Your task to perform on an android device: change notification settings in the gmail app Image 0: 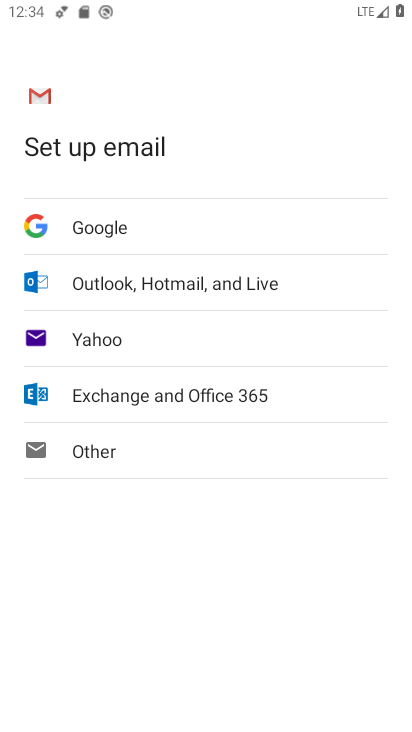
Step 0: press home button
Your task to perform on an android device: change notification settings in the gmail app Image 1: 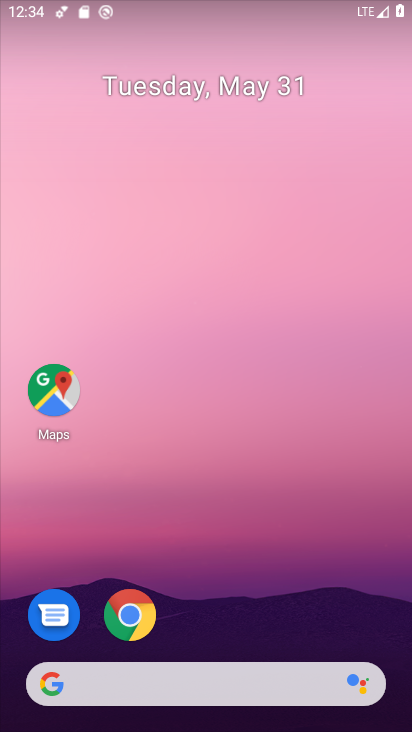
Step 1: drag from (223, 609) to (255, 0)
Your task to perform on an android device: change notification settings in the gmail app Image 2: 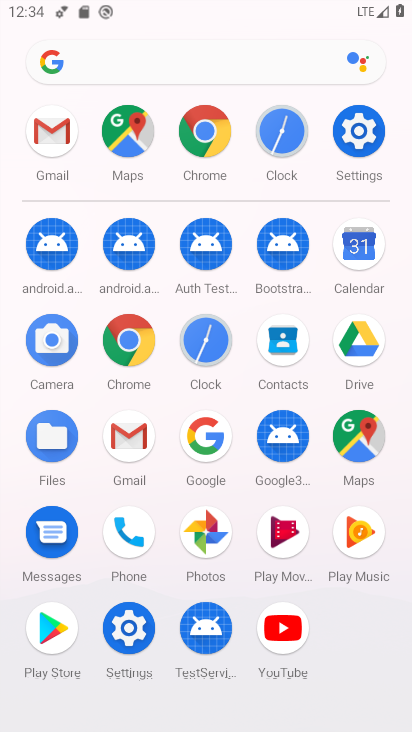
Step 2: click (137, 450)
Your task to perform on an android device: change notification settings in the gmail app Image 3: 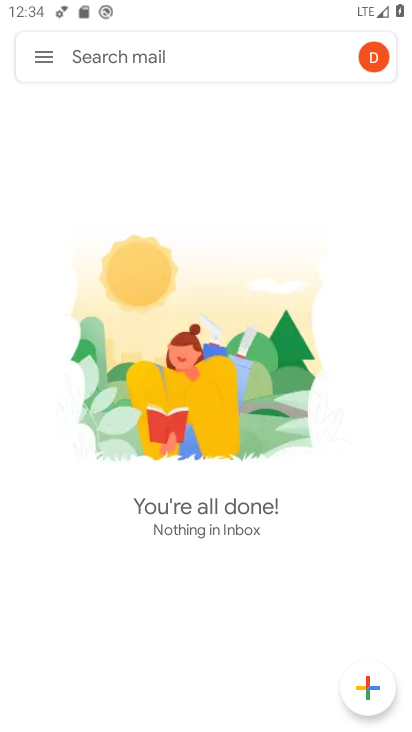
Step 3: click (36, 55)
Your task to perform on an android device: change notification settings in the gmail app Image 4: 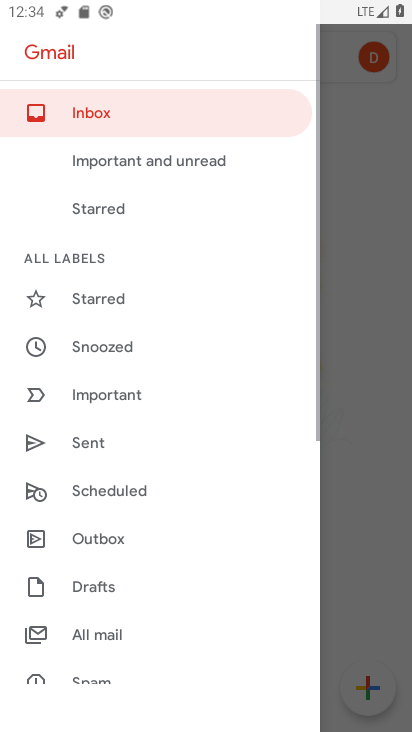
Step 4: drag from (101, 660) to (177, 86)
Your task to perform on an android device: change notification settings in the gmail app Image 5: 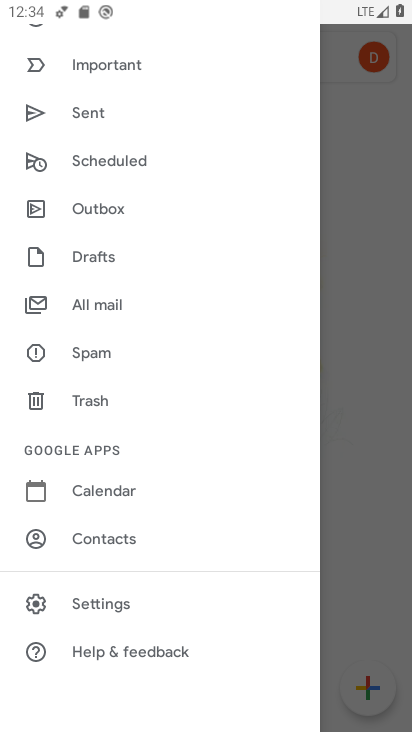
Step 5: click (115, 603)
Your task to perform on an android device: change notification settings in the gmail app Image 6: 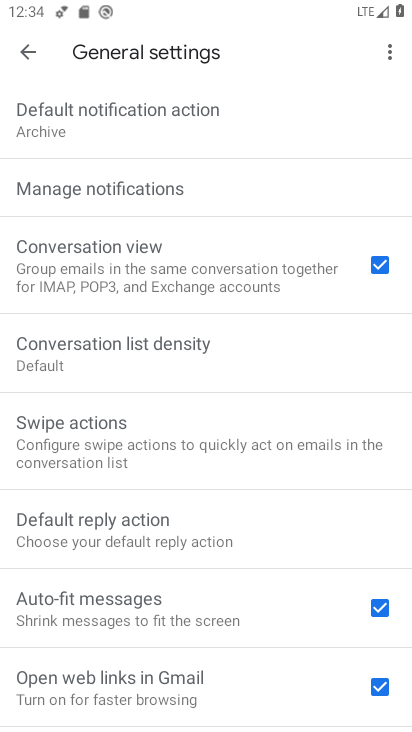
Step 6: click (154, 188)
Your task to perform on an android device: change notification settings in the gmail app Image 7: 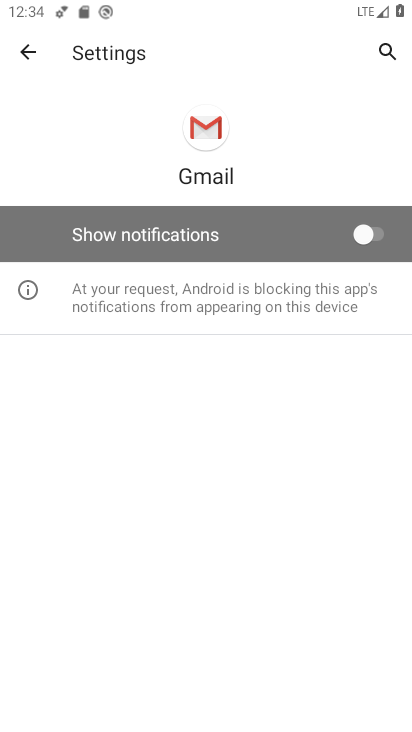
Step 7: click (389, 236)
Your task to perform on an android device: change notification settings in the gmail app Image 8: 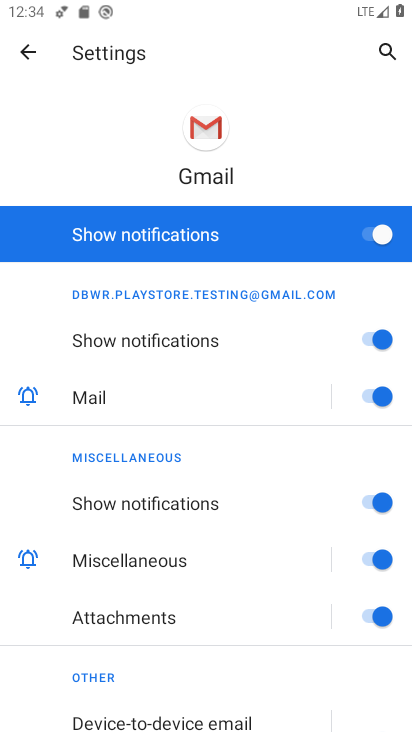
Step 8: task complete